Your task to perform on an android device: move a message to another label in the gmail app Image 0: 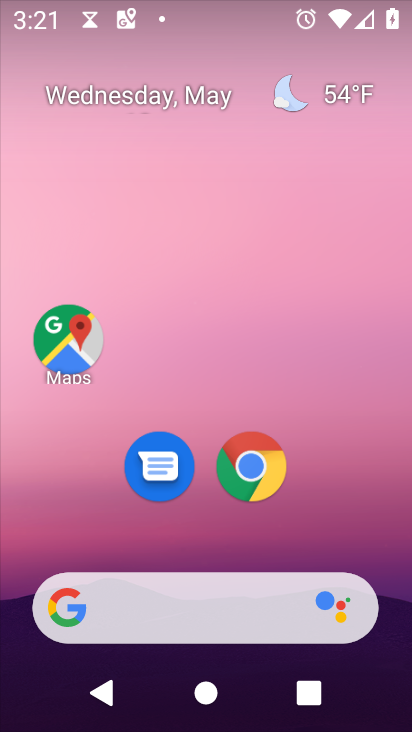
Step 0: drag from (372, 507) to (300, 120)
Your task to perform on an android device: move a message to another label in the gmail app Image 1: 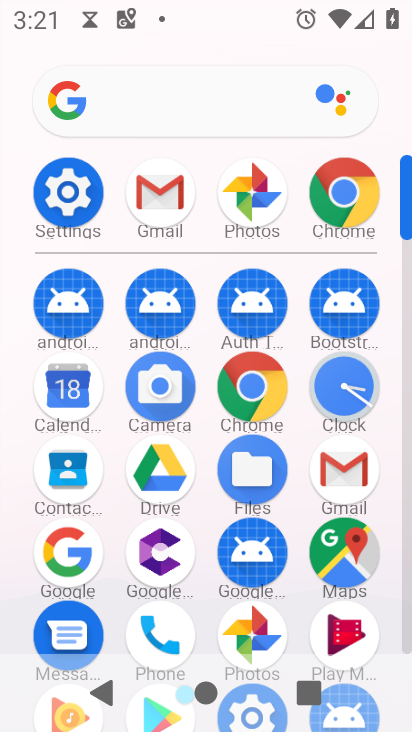
Step 1: click (167, 197)
Your task to perform on an android device: move a message to another label in the gmail app Image 2: 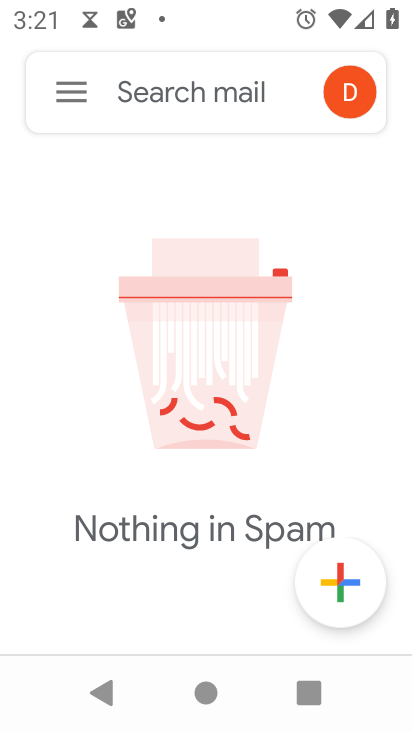
Step 2: click (55, 98)
Your task to perform on an android device: move a message to another label in the gmail app Image 3: 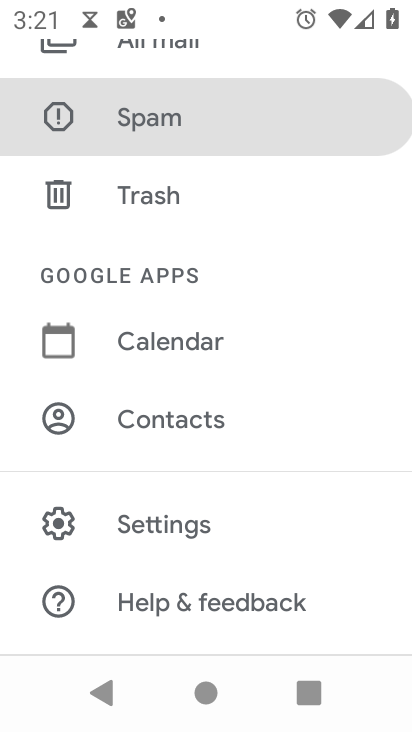
Step 3: drag from (281, 195) to (275, 387)
Your task to perform on an android device: move a message to another label in the gmail app Image 4: 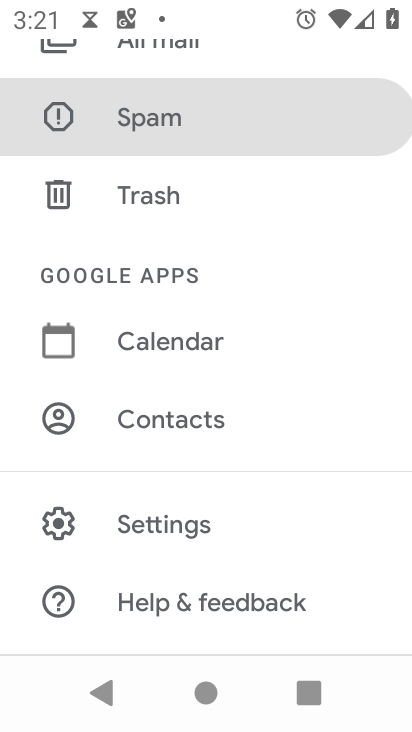
Step 4: click (213, 57)
Your task to perform on an android device: move a message to another label in the gmail app Image 5: 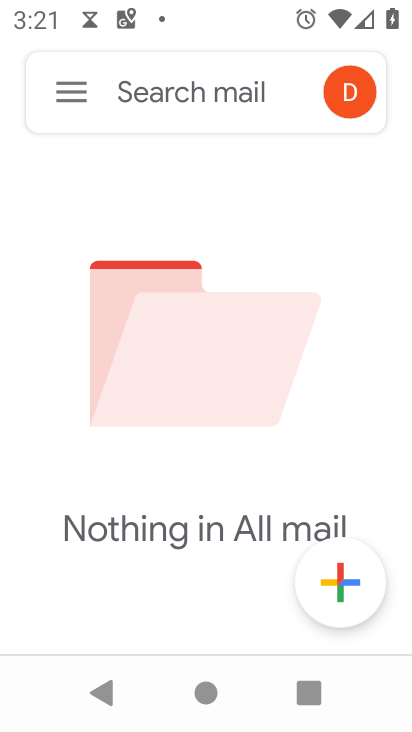
Step 5: task complete